Your task to perform on an android device: Is it going to rain this weekend? Image 0: 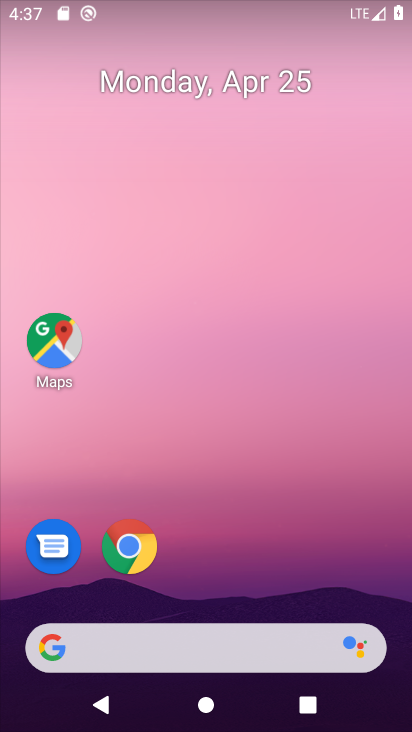
Step 0: drag from (257, 562) to (378, 0)
Your task to perform on an android device: Is it going to rain this weekend? Image 1: 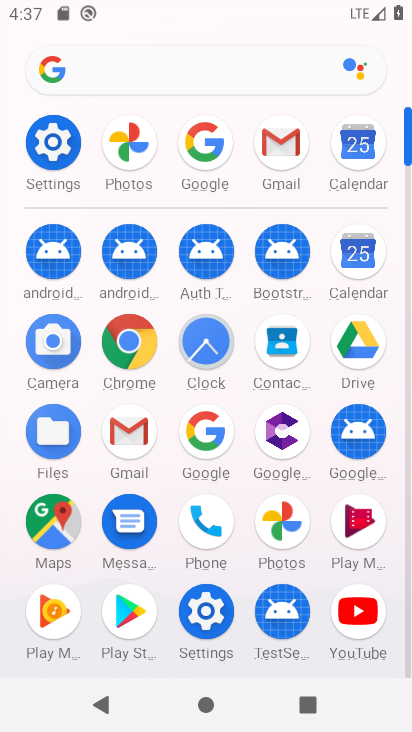
Step 1: click (157, 69)
Your task to perform on an android device: Is it going to rain this weekend? Image 2: 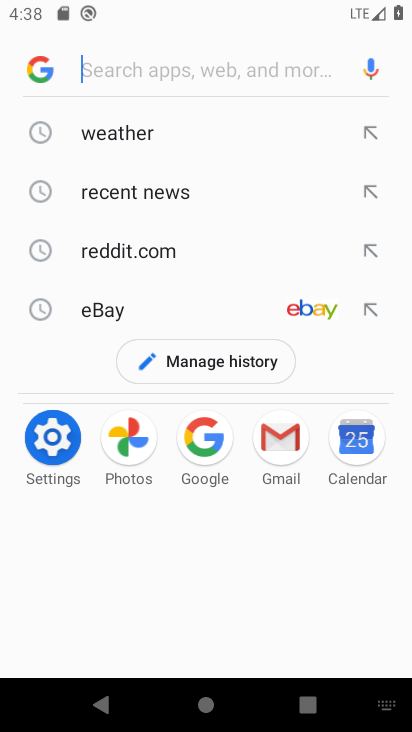
Step 2: type "is it going to rain this weekend"
Your task to perform on an android device: Is it going to rain this weekend? Image 3: 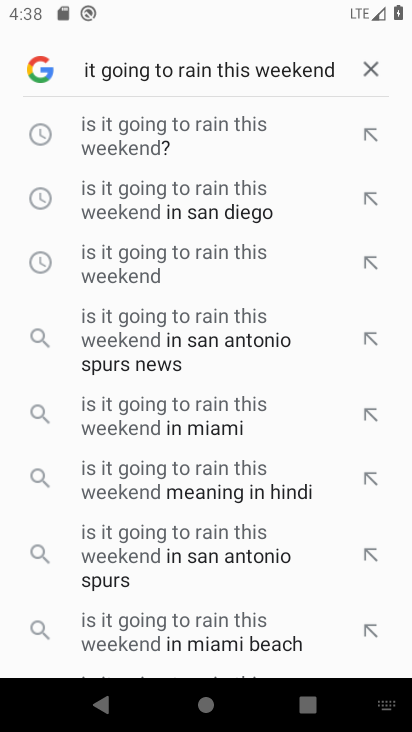
Step 3: click (119, 145)
Your task to perform on an android device: Is it going to rain this weekend? Image 4: 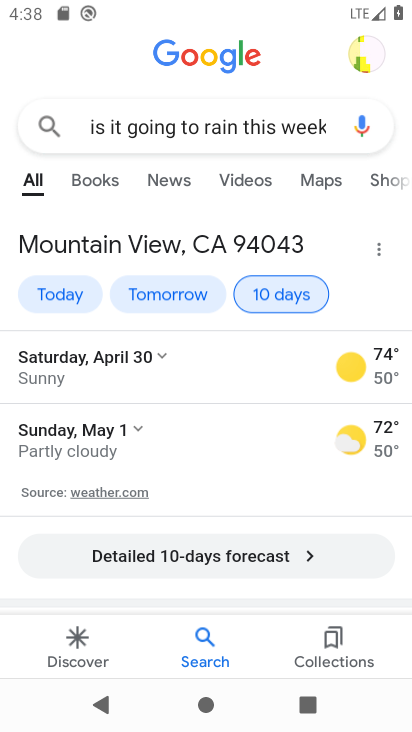
Step 4: task complete